Your task to perform on an android device: see sites visited before in the chrome app Image 0: 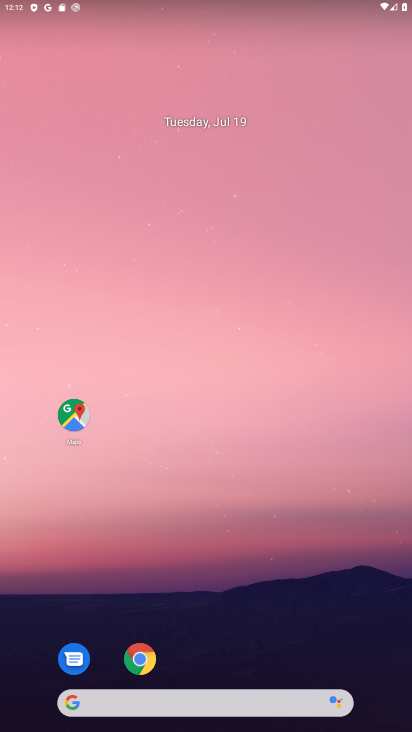
Step 0: click (142, 659)
Your task to perform on an android device: see sites visited before in the chrome app Image 1: 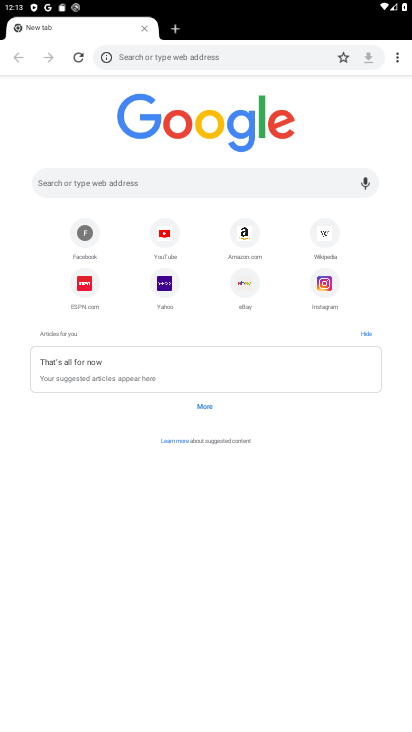
Step 1: click (398, 57)
Your task to perform on an android device: see sites visited before in the chrome app Image 2: 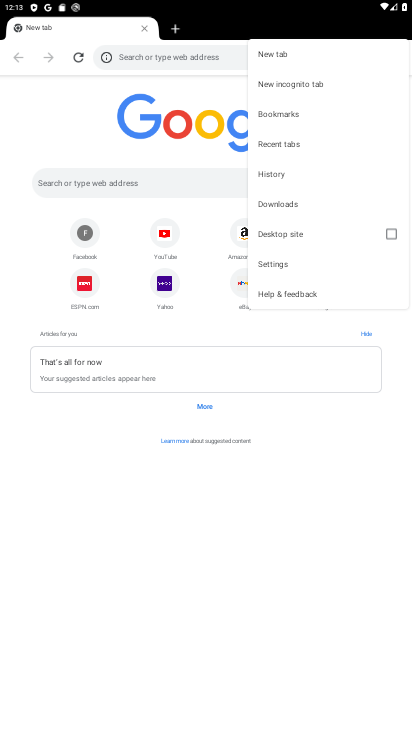
Step 2: click (284, 173)
Your task to perform on an android device: see sites visited before in the chrome app Image 3: 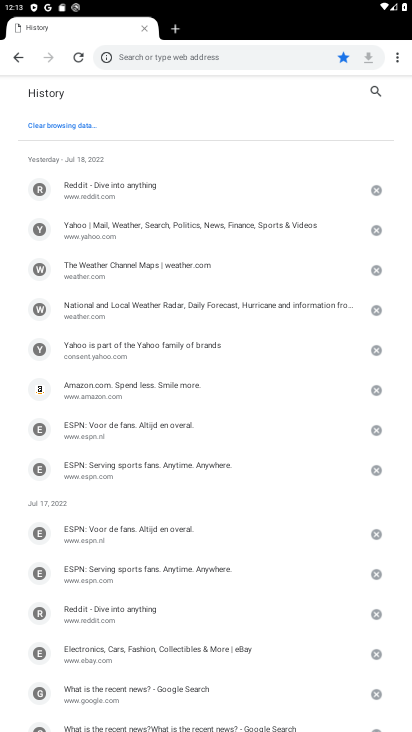
Step 3: task complete